Your task to perform on an android device: Open Wikipedia Image 0: 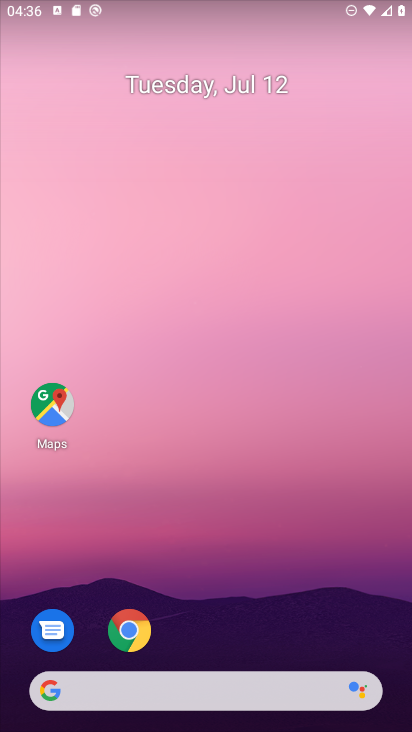
Step 0: click (128, 622)
Your task to perform on an android device: Open Wikipedia Image 1: 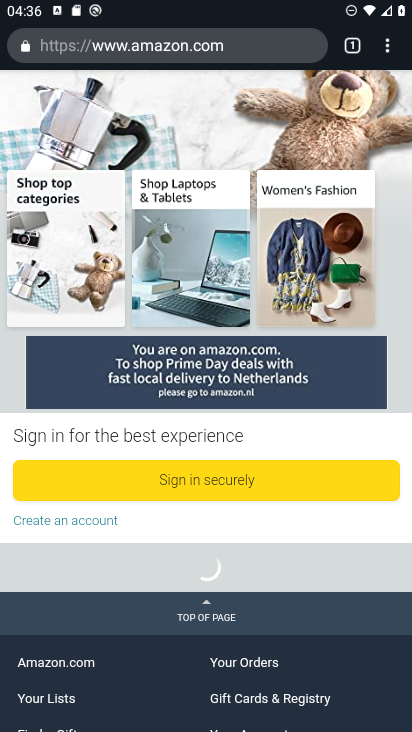
Step 1: click (236, 49)
Your task to perform on an android device: Open Wikipedia Image 2: 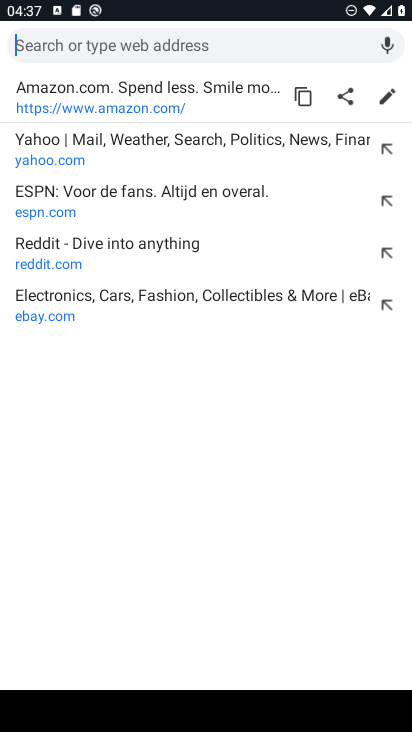
Step 2: type "wikipedia"
Your task to perform on an android device: Open Wikipedia Image 3: 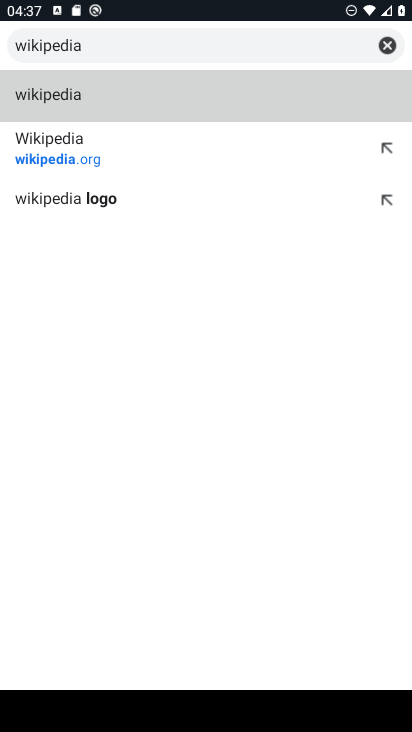
Step 3: click (88, 100)
Your task to perform on an android device: Open Wikipedia Image 4: 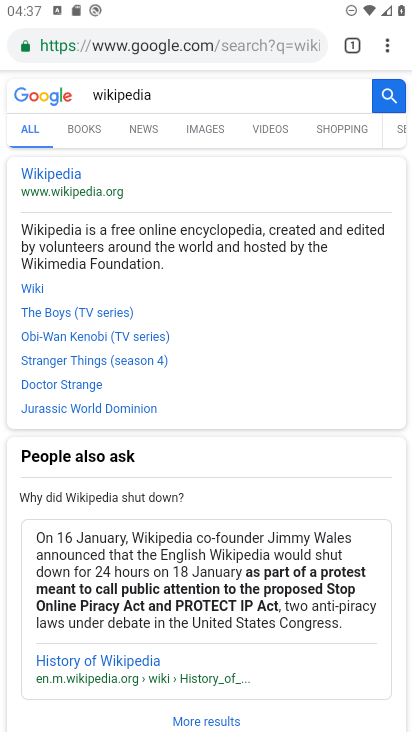
Step 4: click (42, 165)
Your task to perform on an android device: Open Wikipedia Image 5: 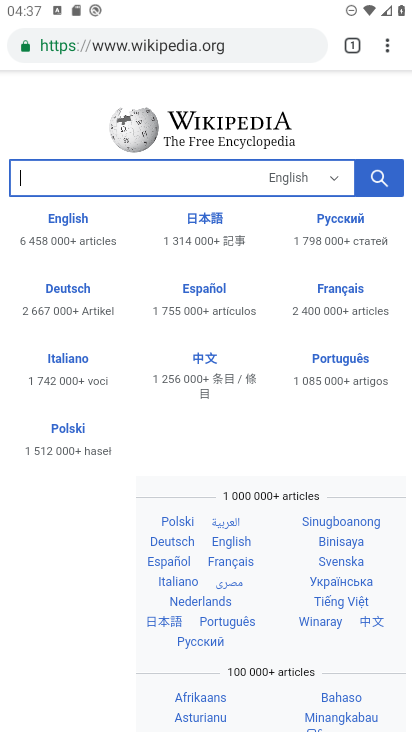
Step 5: task complete